Your task to perform on an android device: Go to Google Image 0: 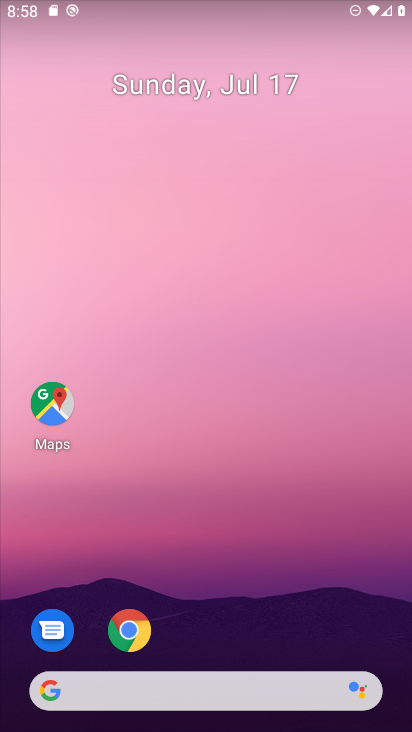
Step 0: drag from (156, 656) to (182, 319)
Your task to perform on an android device: Go to Google Image 1: 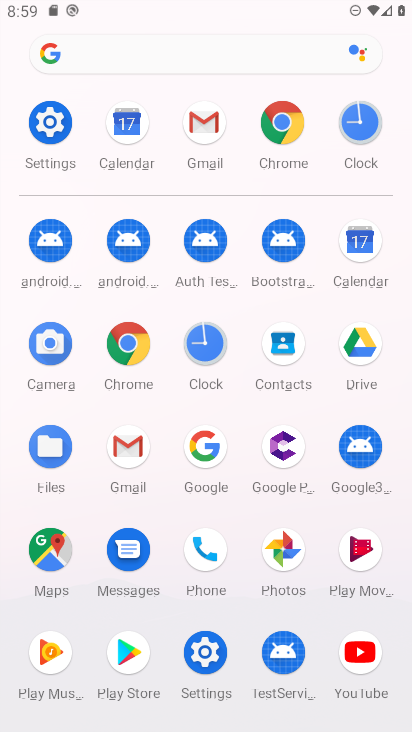
Step 1: click (208, 431)
Your task to perform on an android device: Go to Google Image 2: 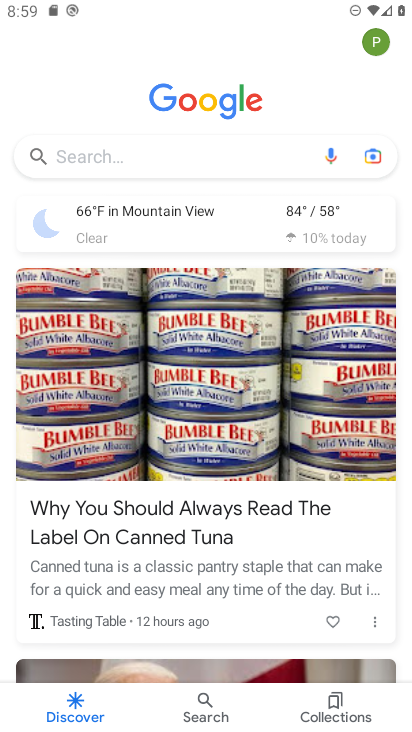
Step 2: task complete